Your task to perform on an android device: Open Yahoo.com Image 0: 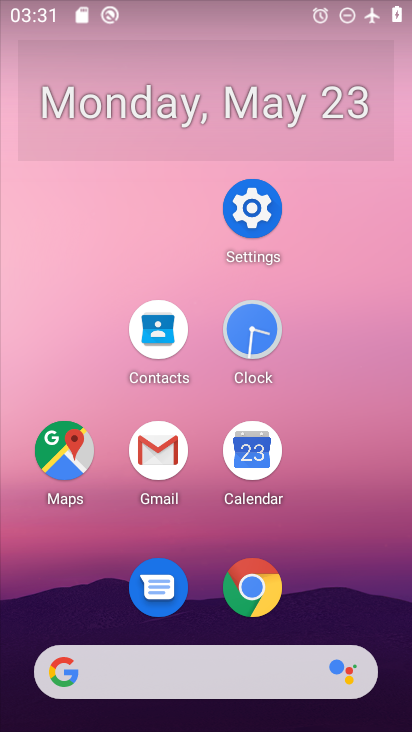
Step 0: click (278, 235)
Your task to perform on an android device: Open Yahoo.com Image 1: 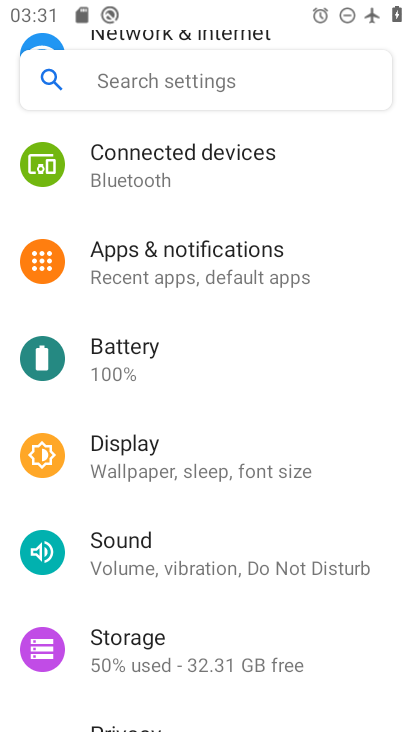
Step 1: click (203, 40)
Your task to perform on an android device: Open Yahoo.com Image 2: 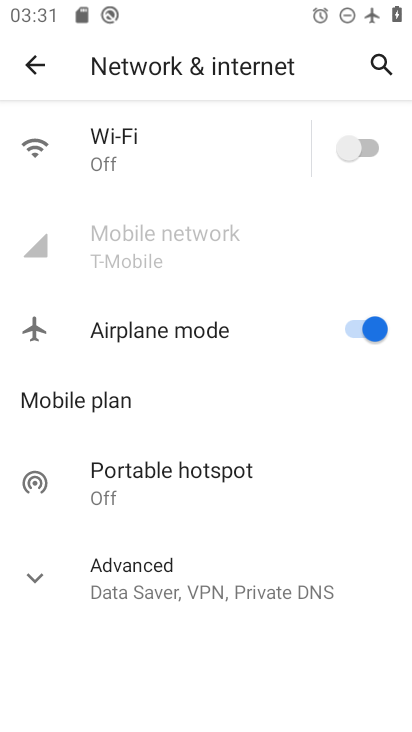
Step 2: click (340, 144)
Your task to perform on an android device: Open Yahoo.com Image 3: 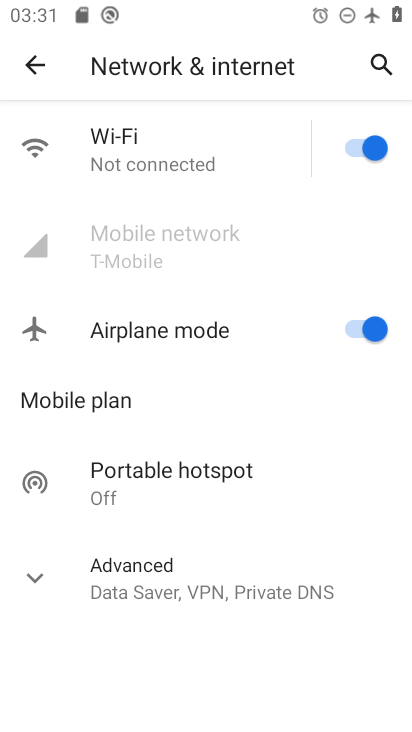
Step 3: click (14, 59)
Your task to perform on an android device: Open Yahoo.com Image 4: 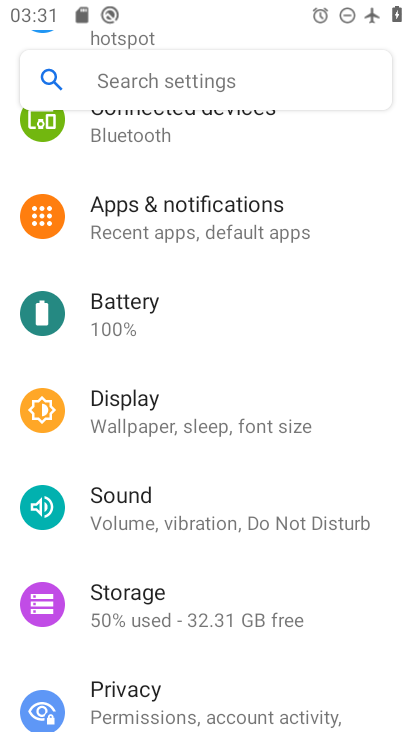
Step 4: press home button
Your task to perform on an android device: Open Yahoo.com Image 5: 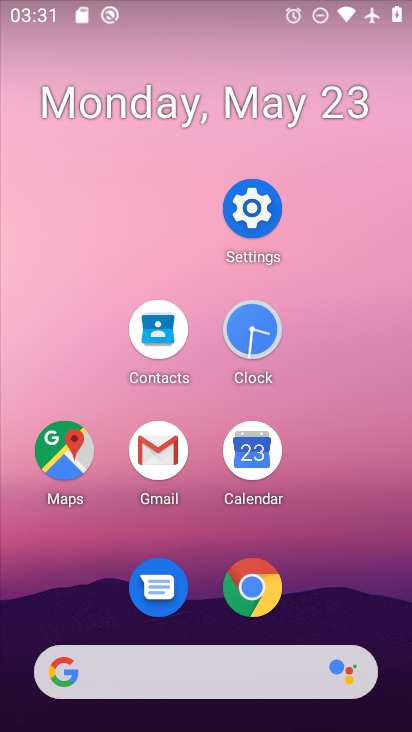
Step 5: click (228, 681)
Your task to perform on an android device: Open Yahoo.com Image 6: 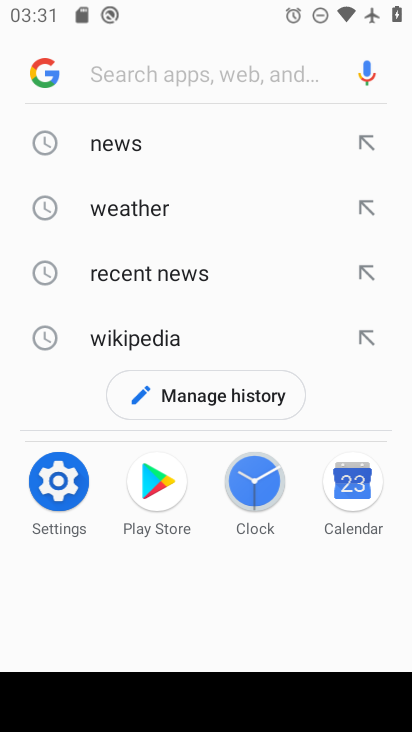
Step 6: type "yahoo.com"
Your task to perform on an android device: Open Yahoo.com Image 7: 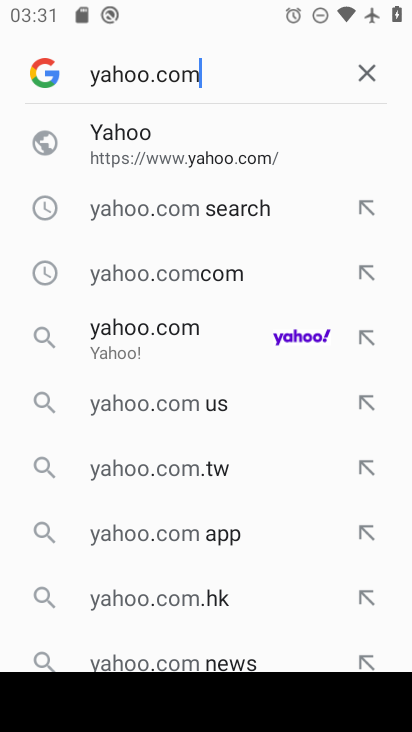
Step 7: click (192, 170)
Your task to perform on an android device: Open Yahoo.com Image 8: 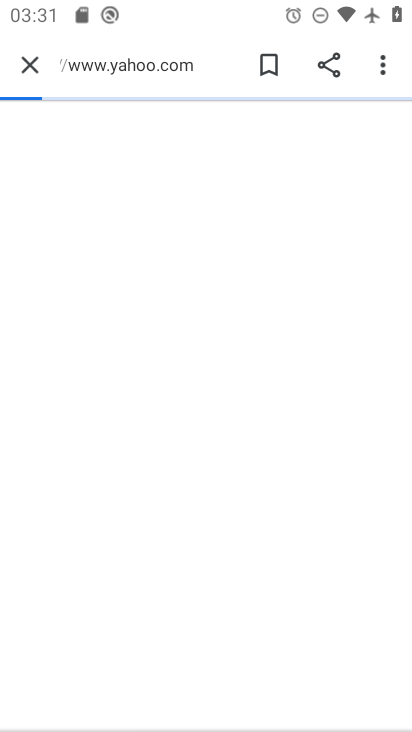
Step 8: task complete